Your task to perform on an android device: Look up the best rated power drills on Lowes.com Image 0: 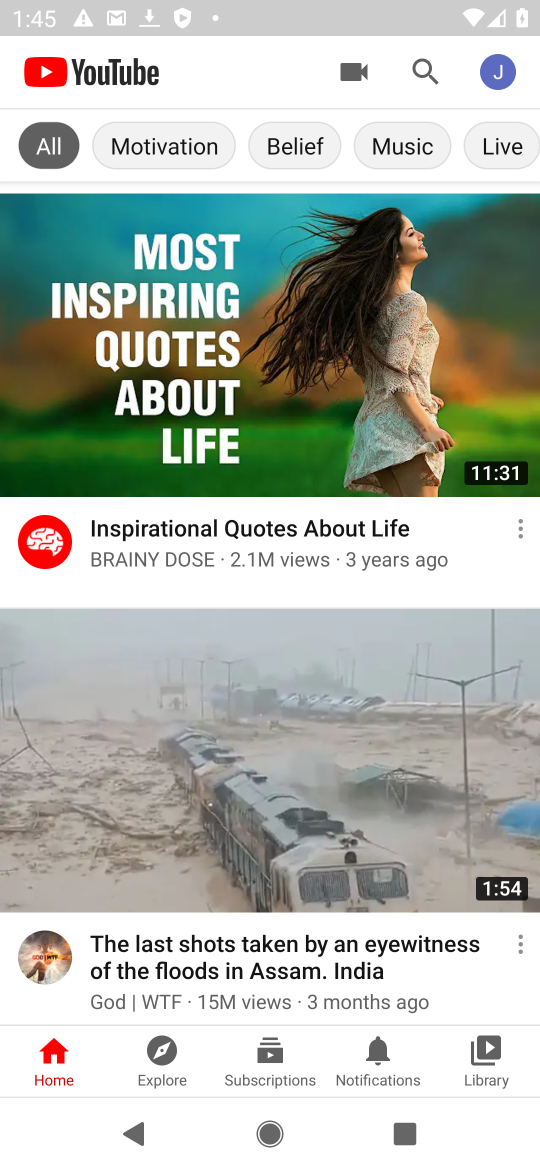
Step 0: press home button
Your task to perform on an android device: Look up the best rated power drills on Lowes.com Image 1: 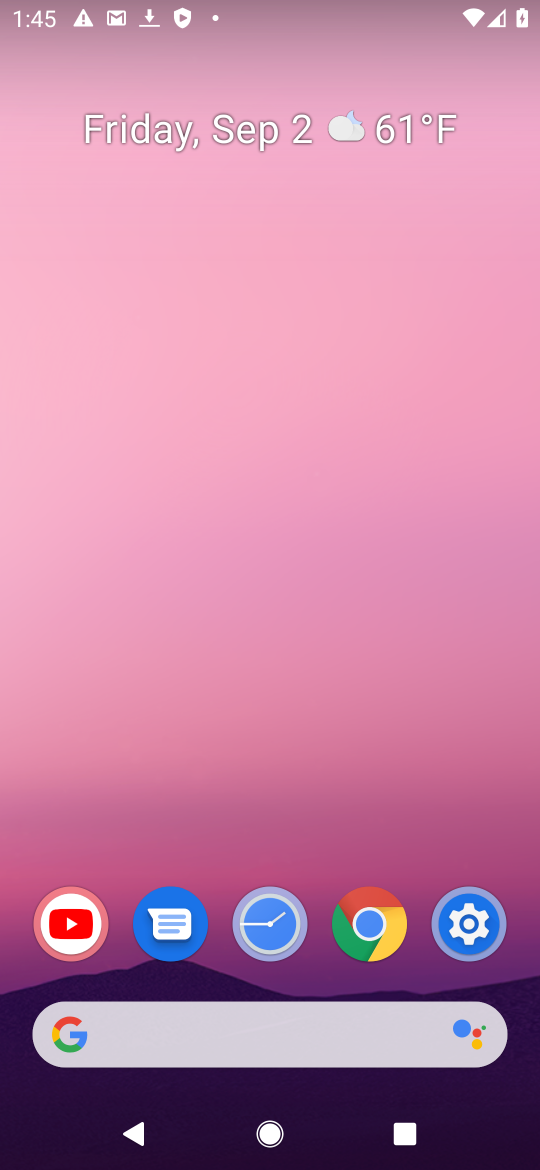
Step 1: click (373, 1035)
Your task to perform on an android device: Look up the best rated power drills on Lowes.com Image 2: 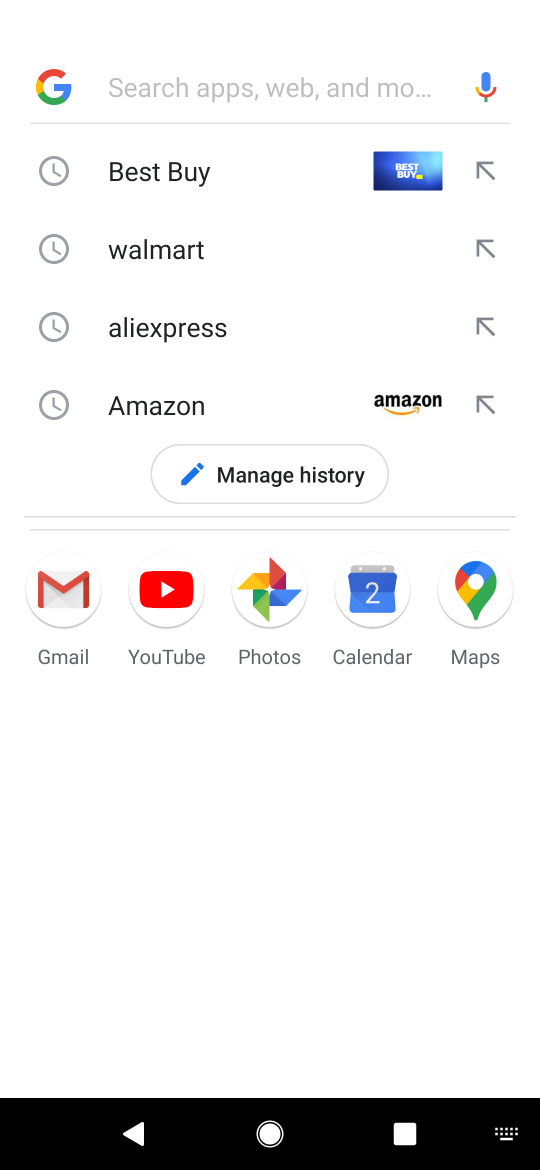
Step 2: press enter
Your task to perform on an android device: Look up the best rated power drills on Lowes.com Image 3: 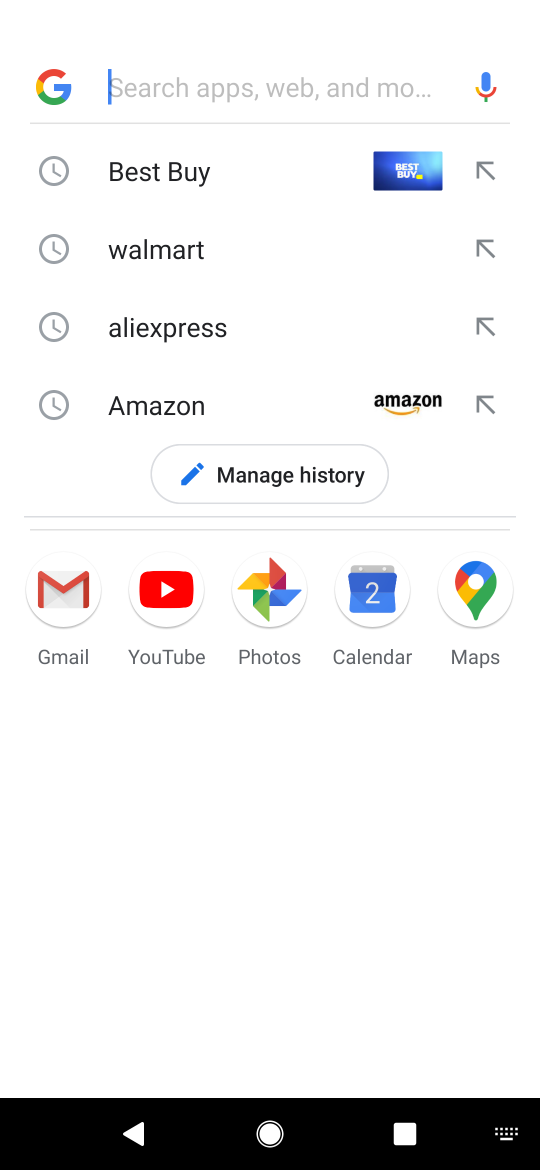
Step 3: type "lowes.com"
Your task to perform on an android device: Look up the best rated power drills on Lowes.com Image 4: 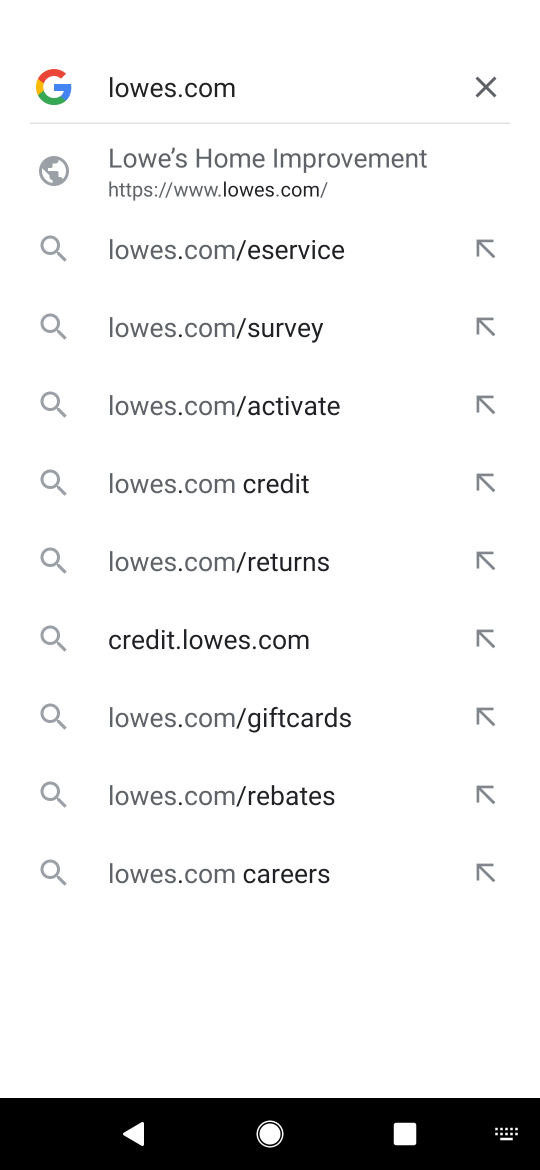
Step 4: click (288, 164)
Your task to perform on an android device: Look up the best rated power drills on Lowes.com Image 5: 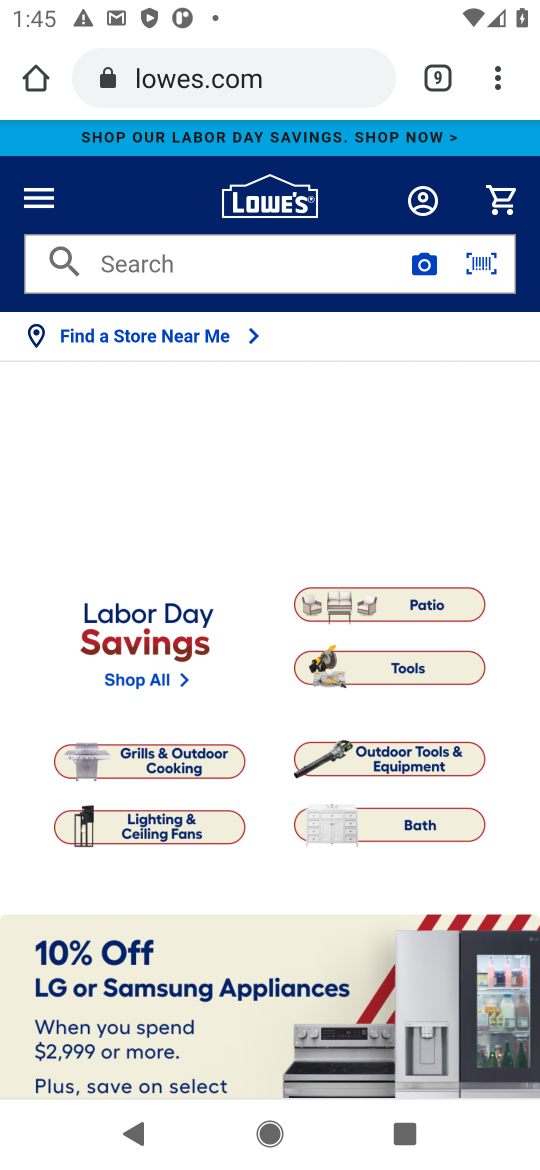
Step 5: click (250, 265)
Your task to perform on an android device: Look up the best rated power drills on Lowes.com Image 6: 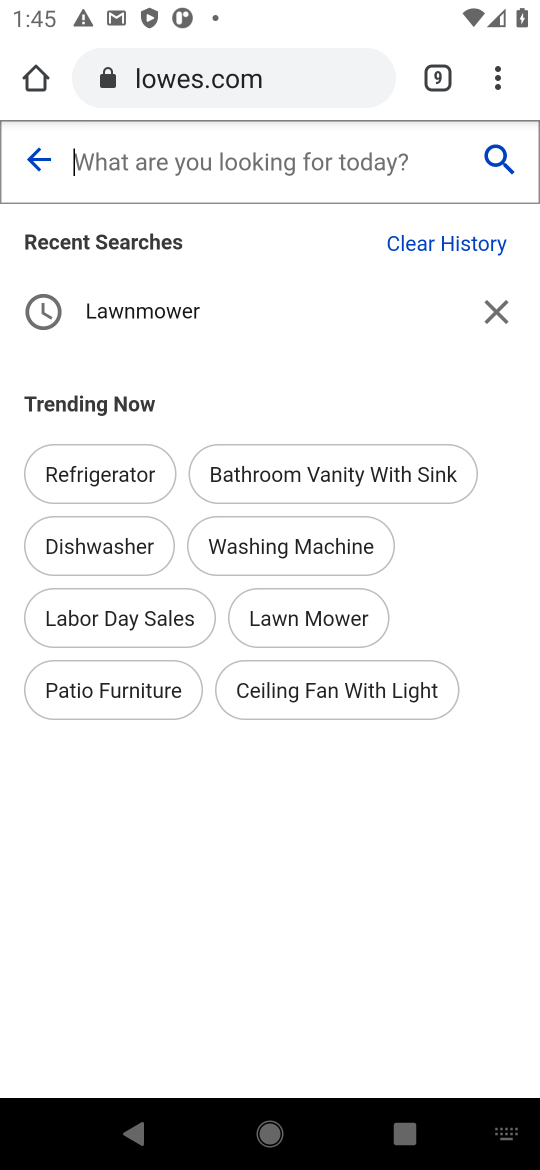
Step 6: type "power drills"
Your task to perform on an android device: Look up the best rated power drills on Lowes.com Image 7: 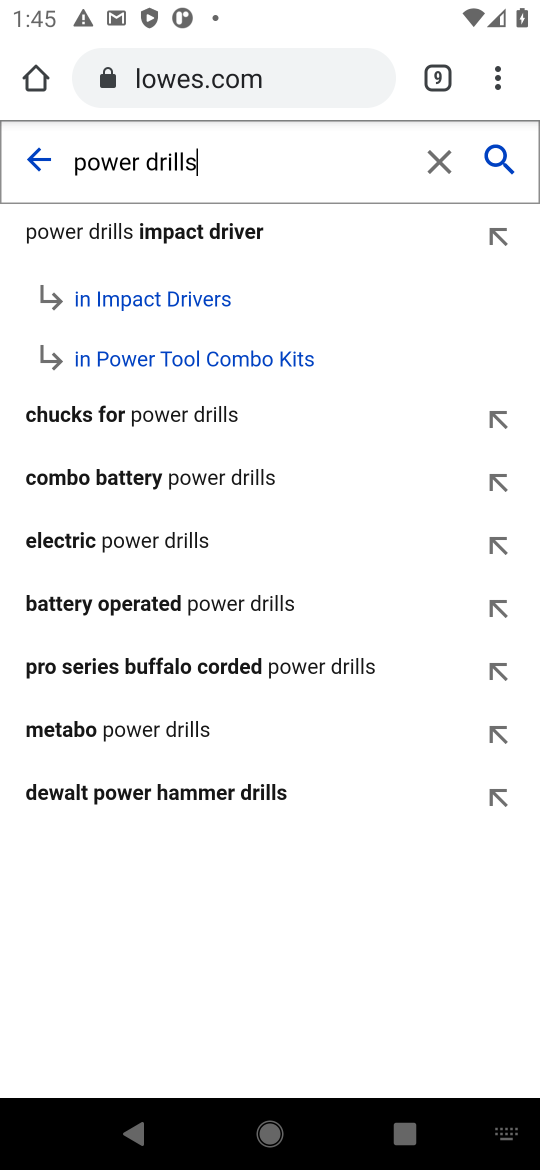
Step 7: click (498, 151)
Your task to perform on an android device: Look up the best rated power drills on Lowes.com Image 8: 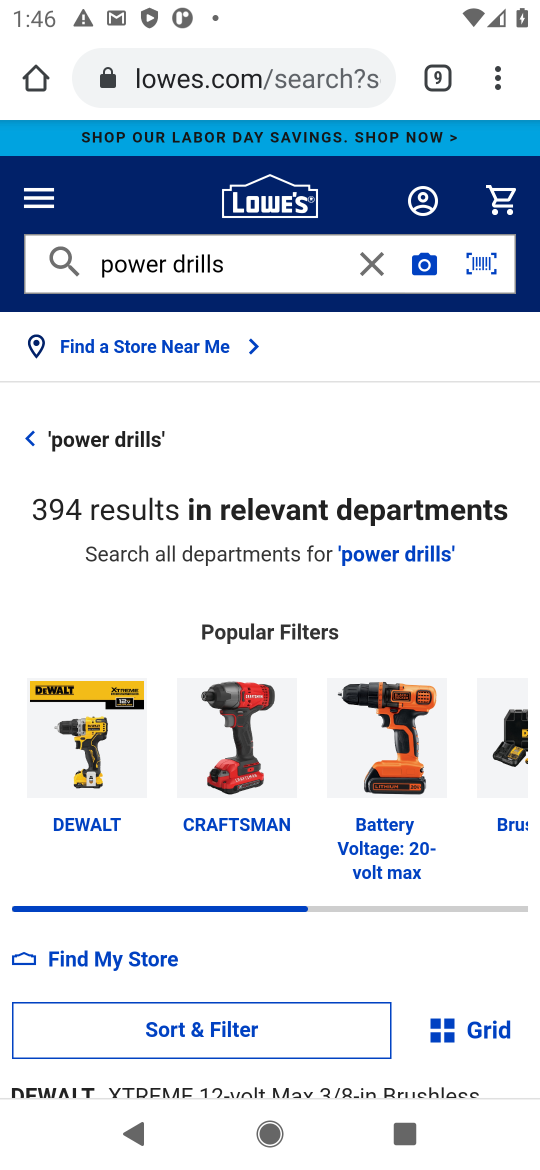
Step 8: task complete